Your task to perform on an android device: uninstall "Gboard" Image 0: 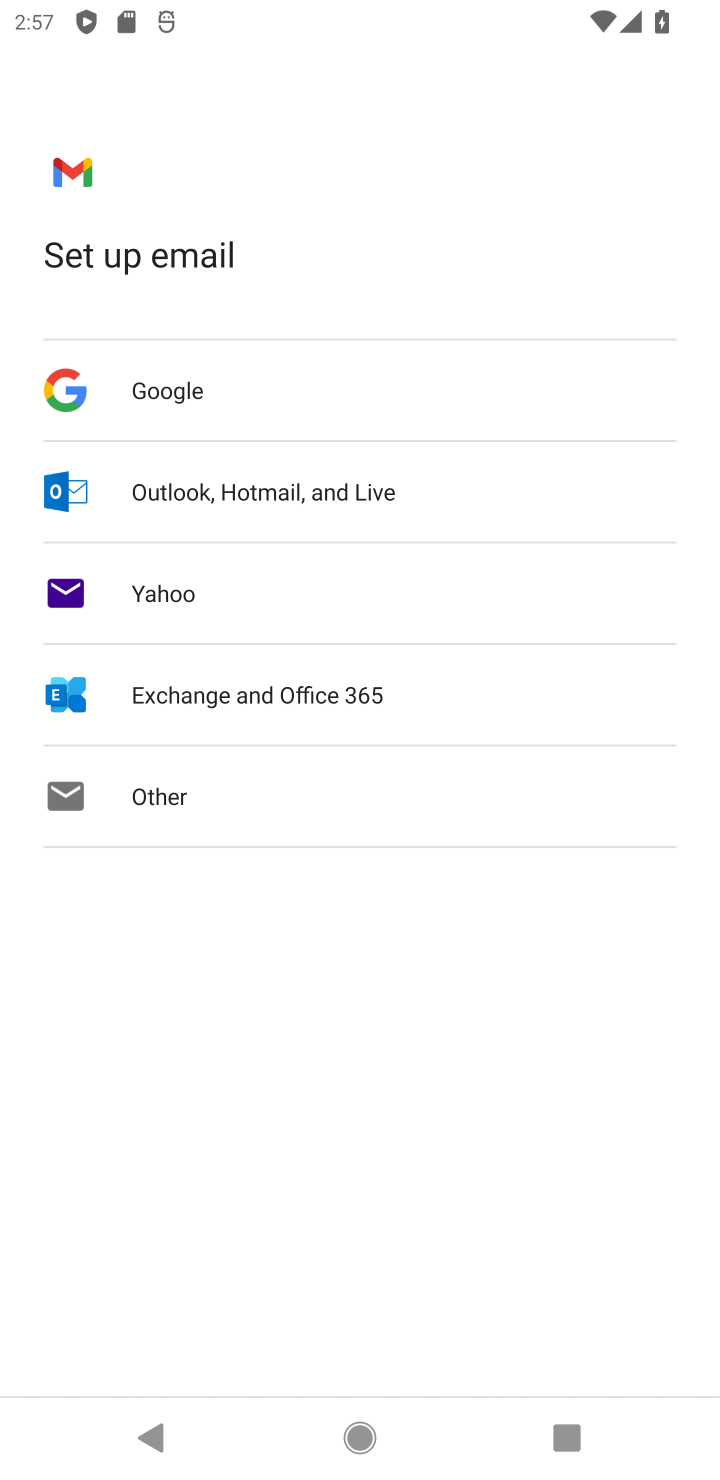
Step 0: press home button
Your task to perform on an android device: uninstall "Gboard" Image 1: 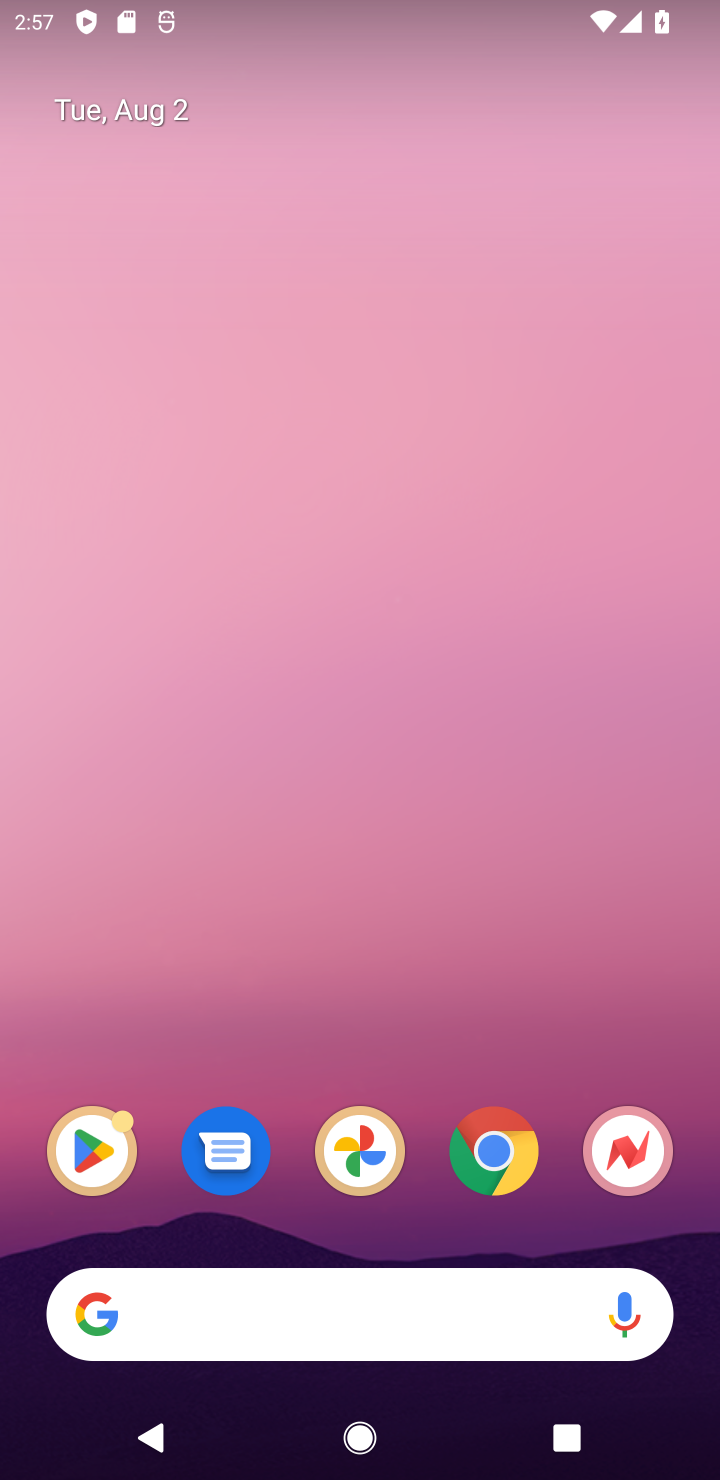
Step 1: drag from (409, 1475) to (387, 617)
Your task to perform on an android device: uninstall "Gboard" Image 2: 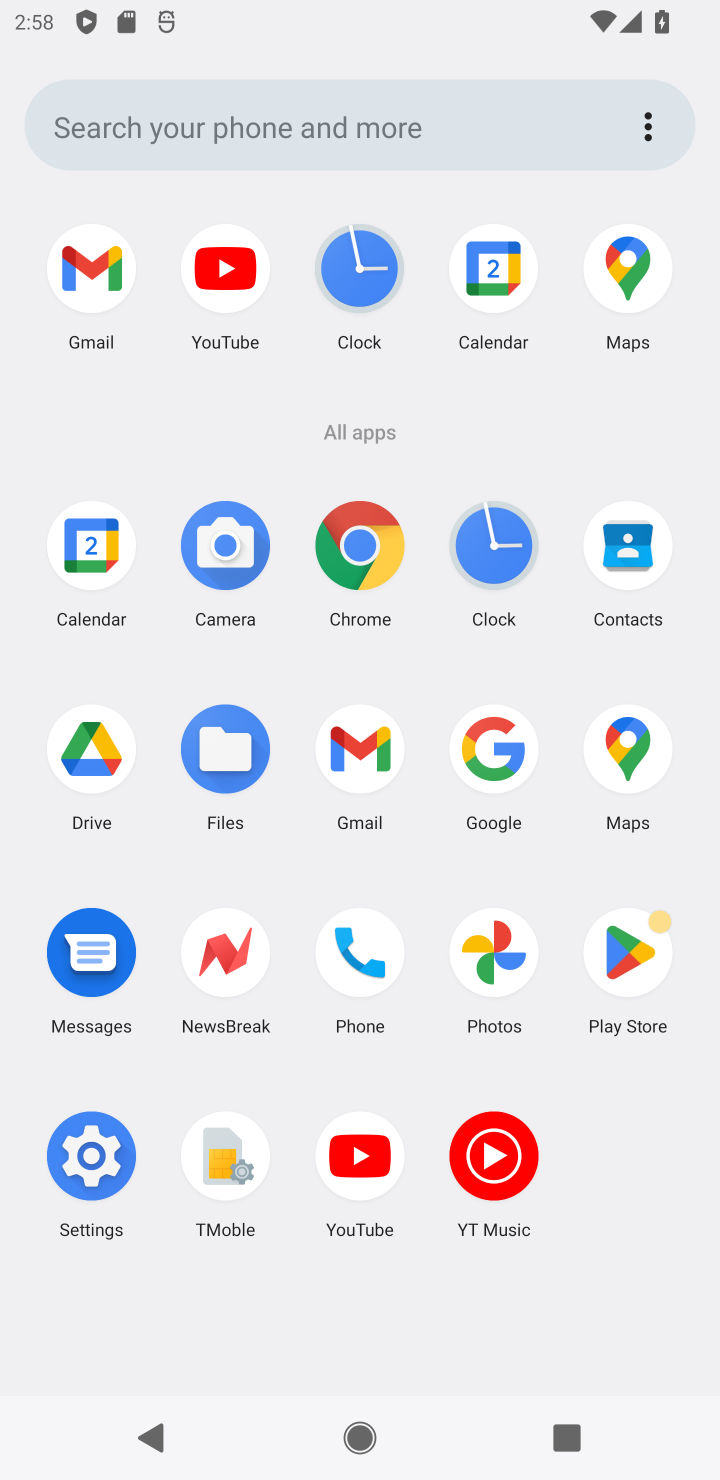
Step 2: click (633, 952)
Your task to perform on an android device: uninstall "Gboard" Image 3: 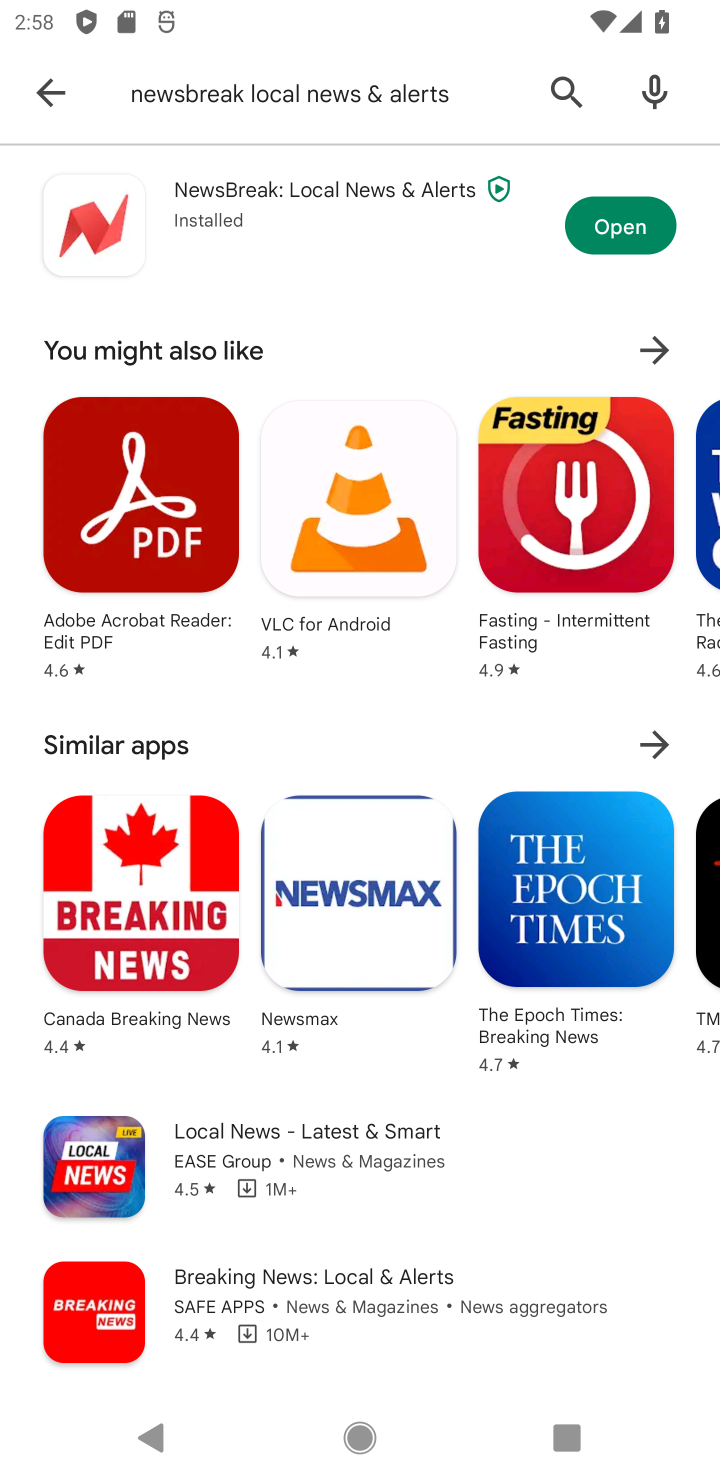
Step 3: click (562, 79)
Your task to perform on an android device: uninstall "Gboard" Image 4: 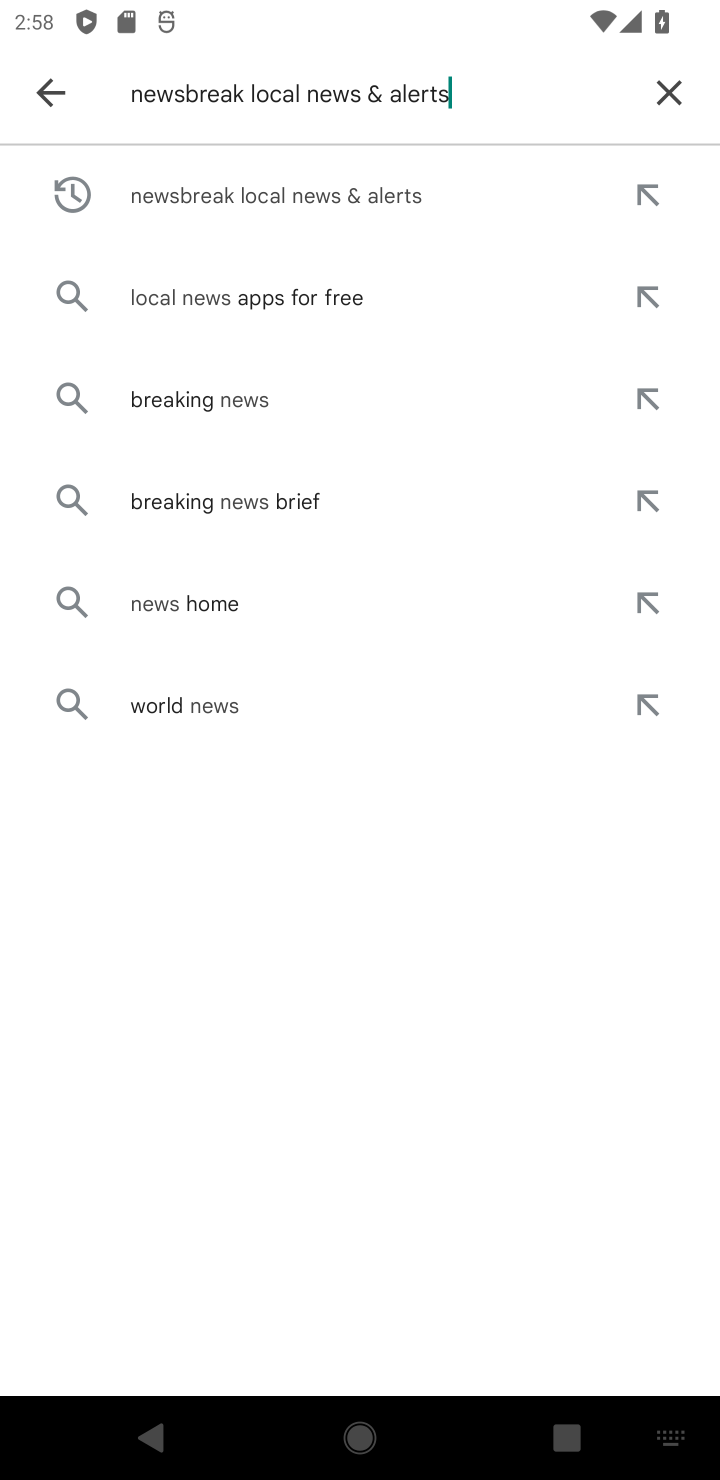
Step 4: click (670, 84)
Your task to perform on an android device: uninstall "Gboard" Image 5: 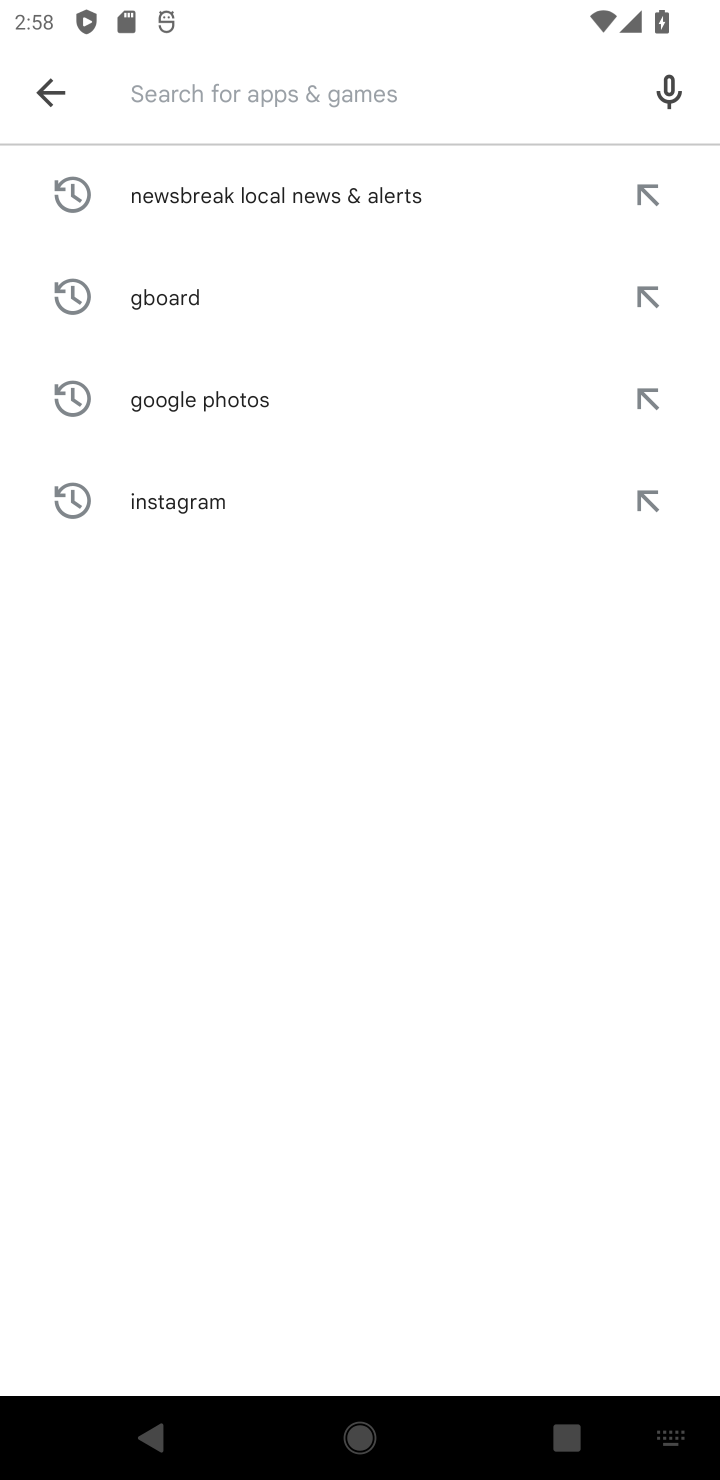
Step 5: type "Gboard"
Your task to perform on an android device: uninstall "Gboard" Image 6: 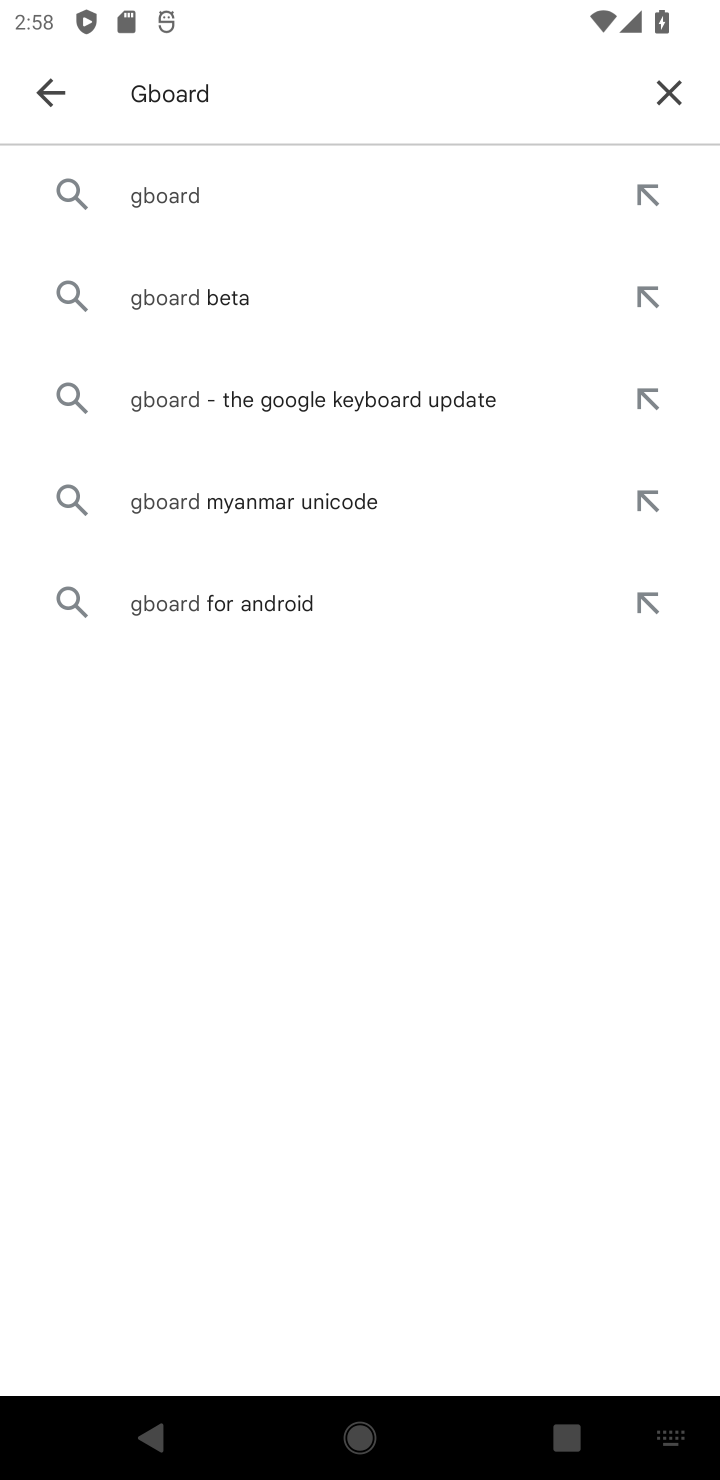
Step 6: click (167, 191)
Your task to perform on an android device: uninstall "Gboard" Image 7: 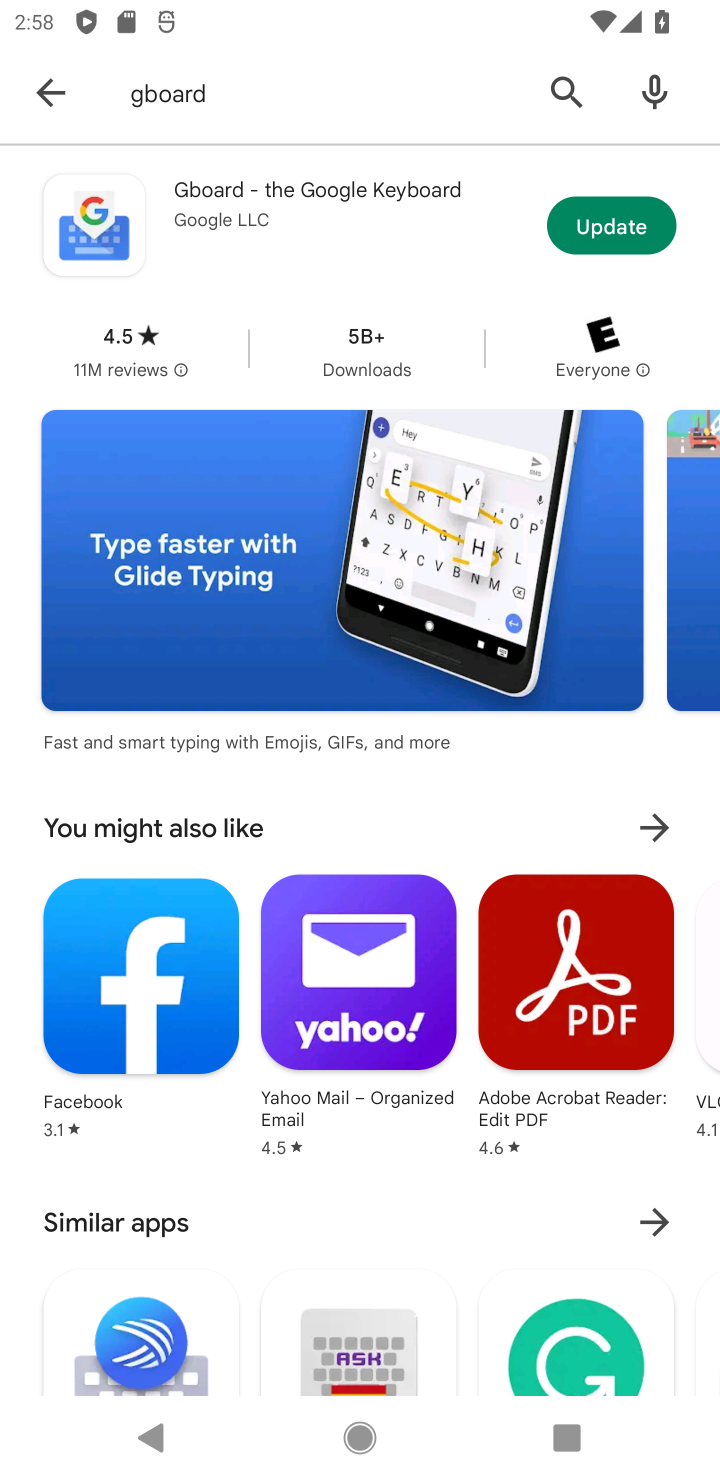
Step 7: click (279, 188)
Your task to perform on an android device: uninstall "Gboard" Image 8: 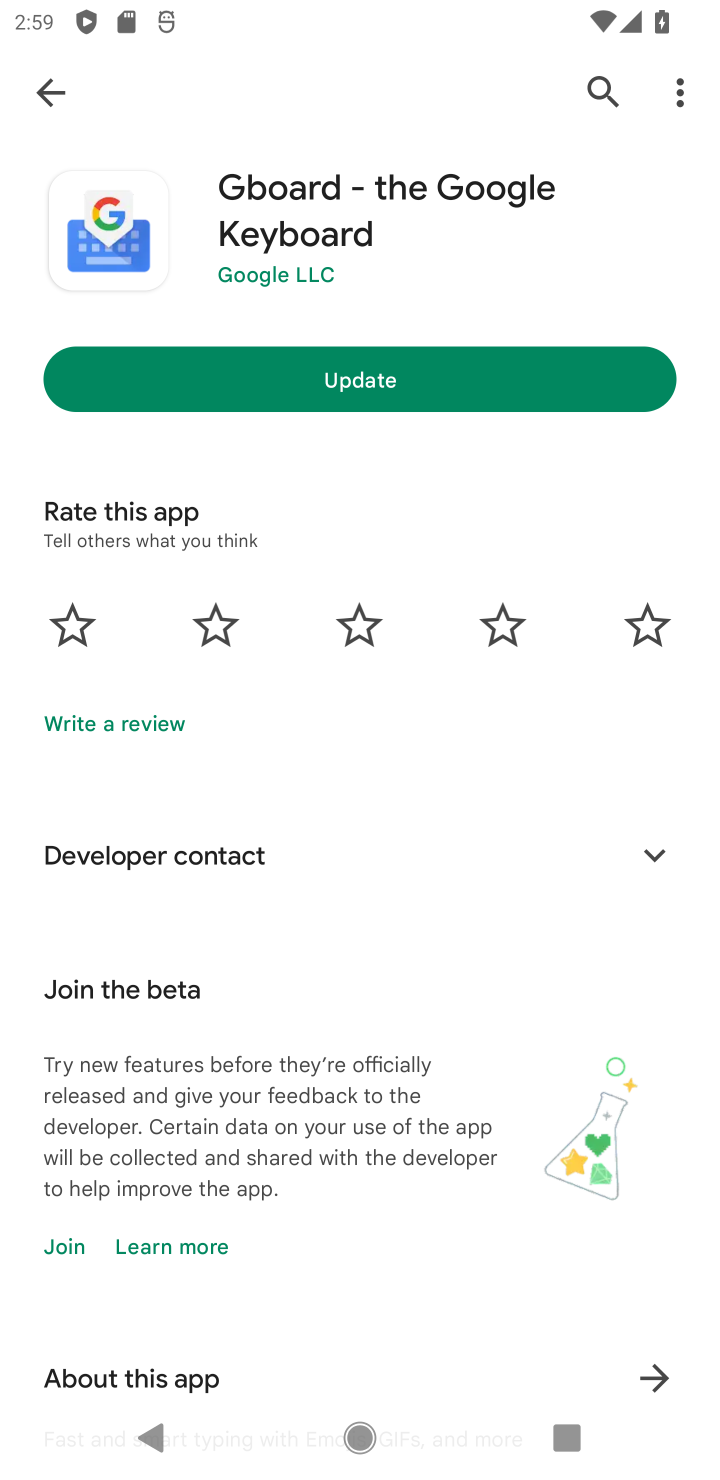
Step 8: task complete